Your task to perform on an android device: Open calendar and show me the third week of next month Image 0: 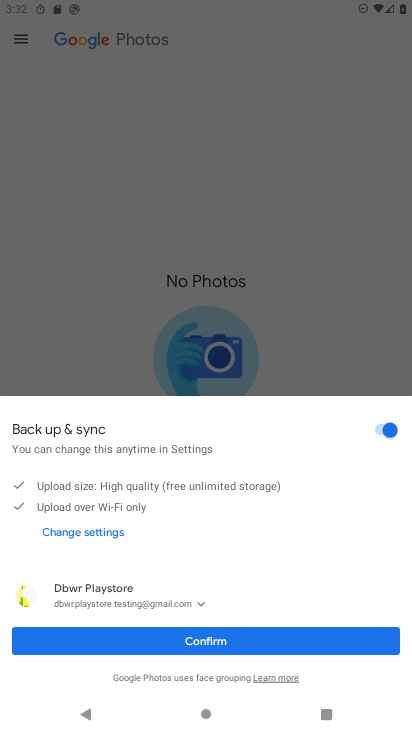
Step 0: press home button
Your task to perform on an android device: Open calendar and show me the third week of next month Image 1: 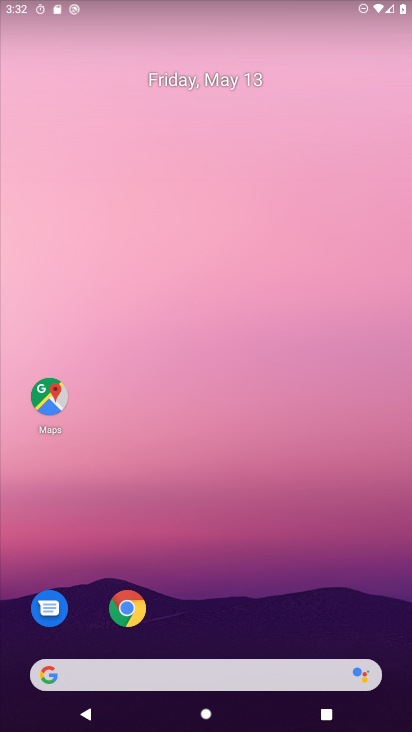
Step 1: drag from (243, 613) to (250, 97)
Your task to perform on an android device: Open calendar and show me the third week of next month Image 2: 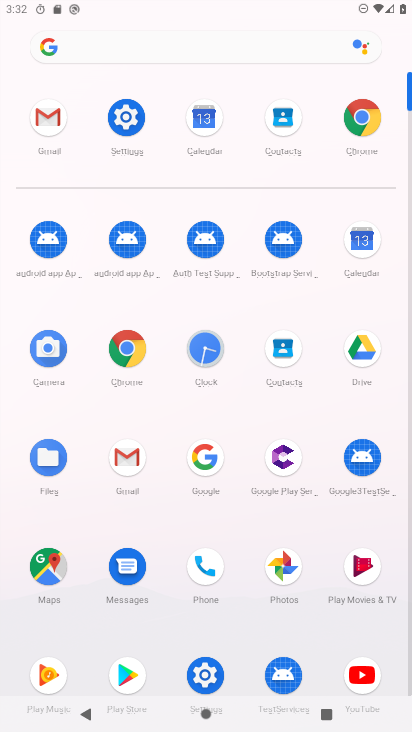
Step 2: click (194, 119)
Your task to perform on an android device: Open calendar and show me the third week of next month Image 3: 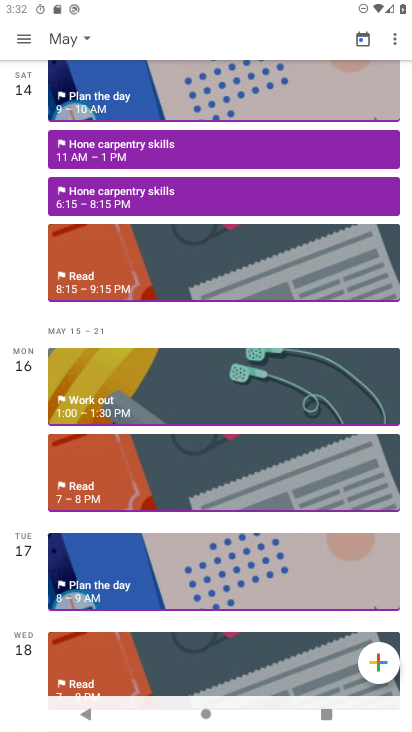
Step 3: click (76, 42)
Your task to perform on an android device: Open calendar and show me the third week of next month Image 4: 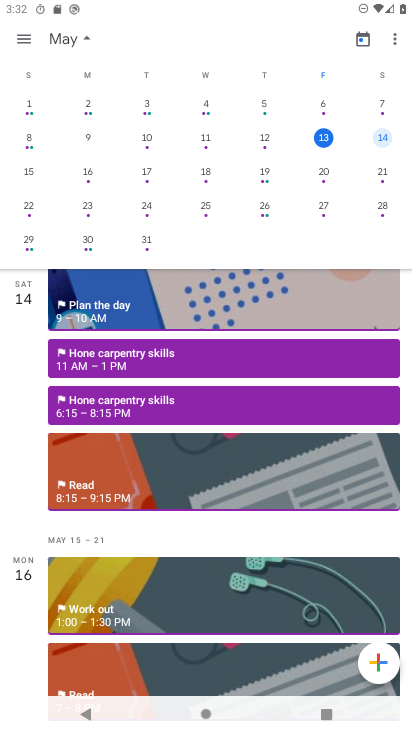
Step 4: drag from (357, 131) to (43, 113)
Your task to perform on an android device: Open calendar and show me the third week of next month Image 5: 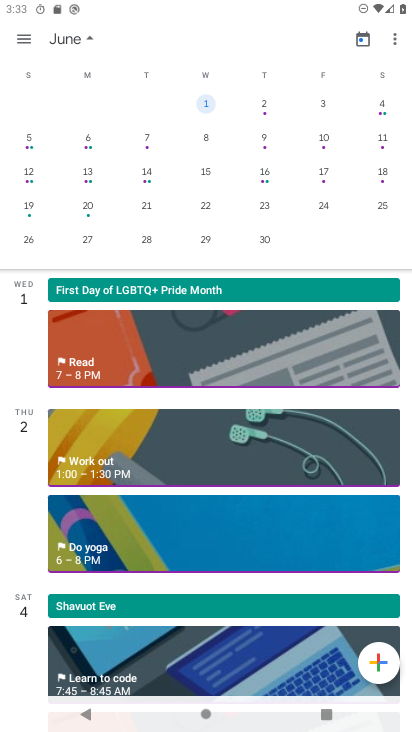
Step 5: click (320, 173)
Your task to perform on an android device: Open calendar and show me the third week of next month Image 6: 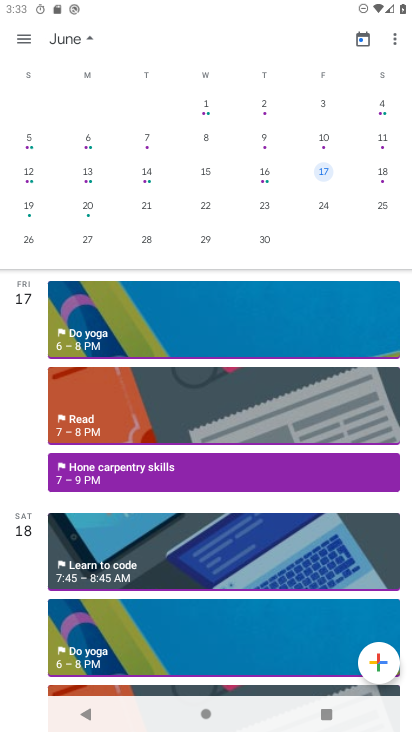
Step 6: task complete